Your task to perform on an android device: Open calendar and show me the second week of next month Image 0: 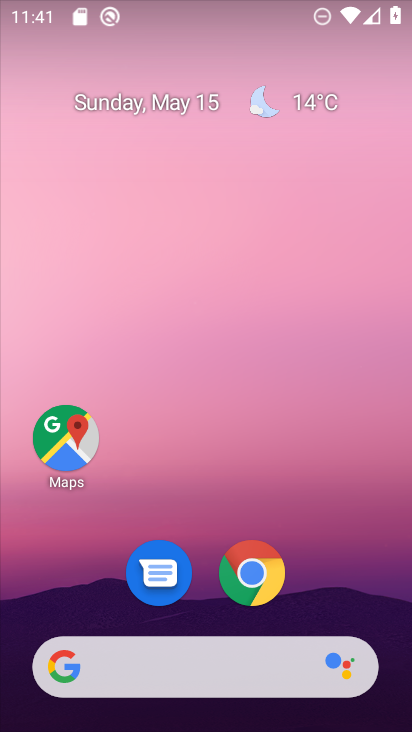
Step 0: drag from (250, 436) to (159, 42)
Your task to perform on an android device: Open calendar and show me the second week of next month Image 1: 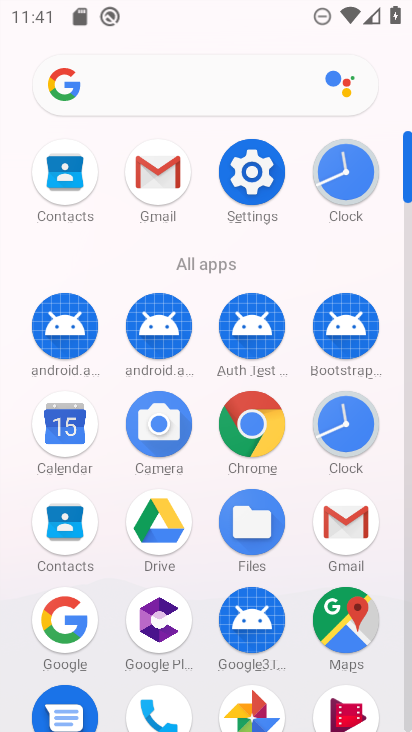
Step 1: click (58, 429)
Your task to perform on an android device: Open calendar and show me the second week of next month Image 2: 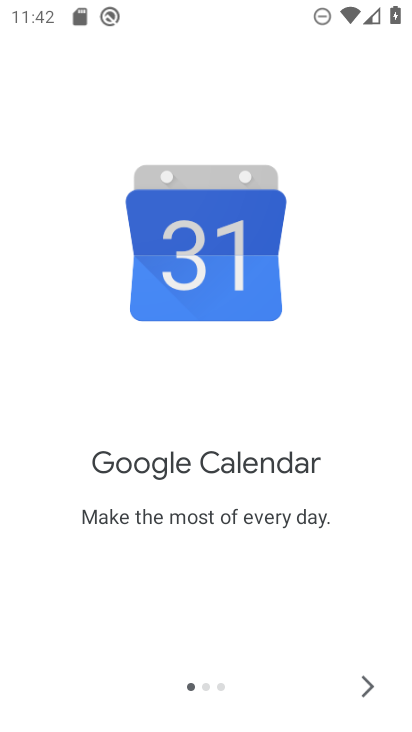
Step 2: click (363, 677)
Your task to perform on an android device: Open calendar and show me the second week of next month Image 3: 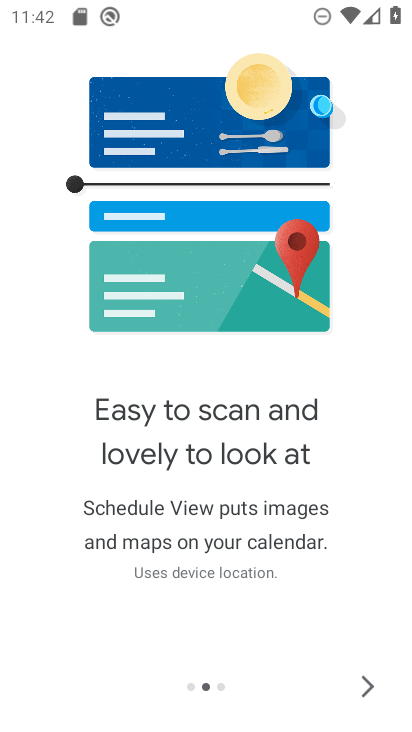
Step 3: click (363, 677)
Your task to perform on an android device: Open calendar and show me the second week of next month Image 4: 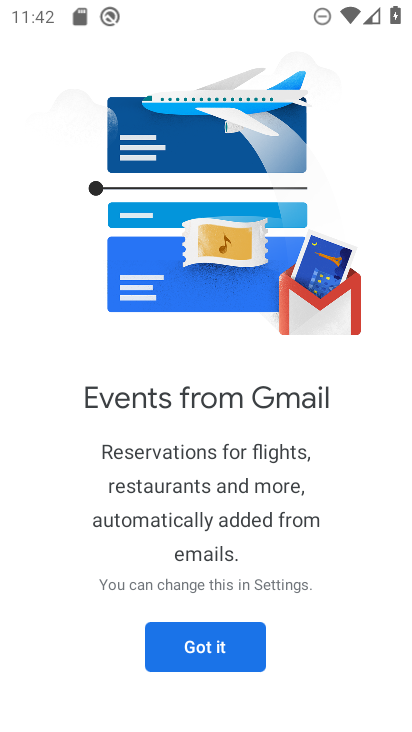
Step 4: click (364, 676)
Your task to perform on an android device: Open calendar and show me the second week of next month Image 5: 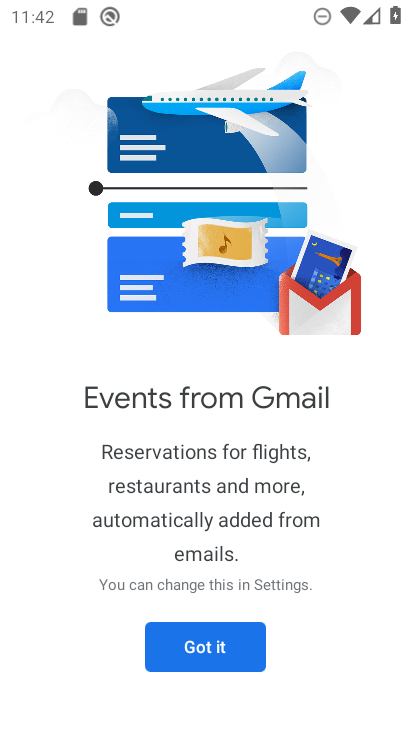
Step 5: click (211, 649)
Your task to perform on an android device: Open calendar and show me the second week of next month Image 6: 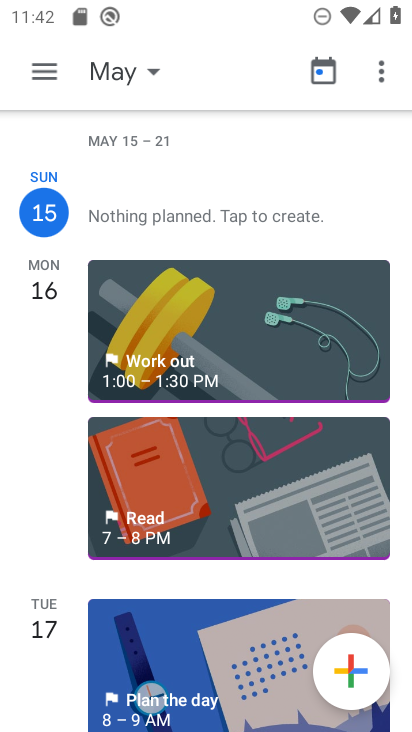
Step 6: click (40, 69)
Your task to perform on an android device: Open calendar and show me the second week of next month Image 7: 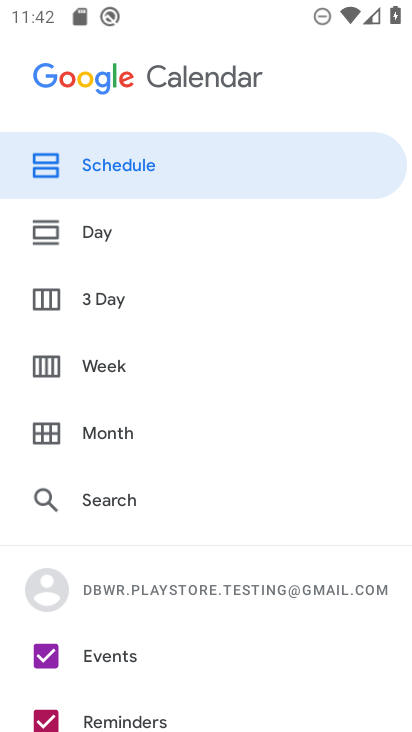
Step 7: click (92, 360)
Your task to perform on an android device: Open calendar and show me the second week of next month Image 8: 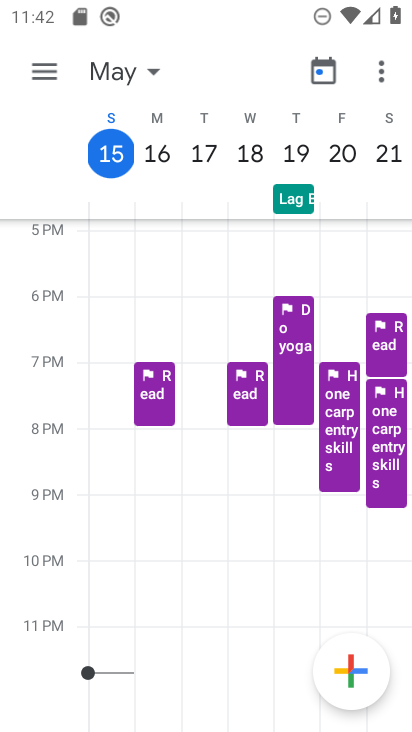
Step 8: click (152, 66)
Your task to perform on an android device: Open calendar and show me the second week of next month Image 9: 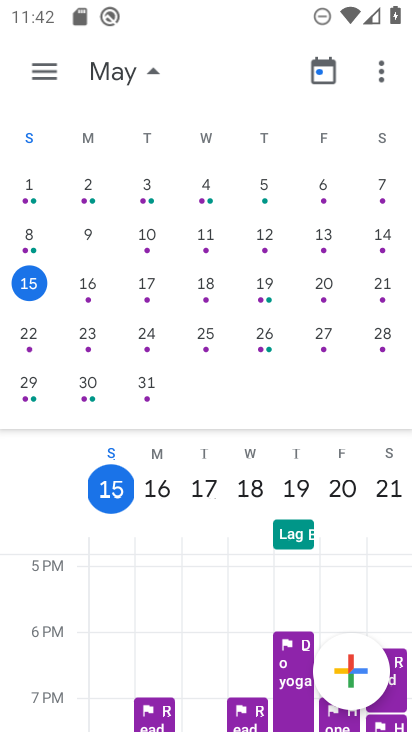
Step 9: drag from (337, 252) to (79, 244)
Your task to perform on an android device: Open calendar and show me the second week of next month Image 10: 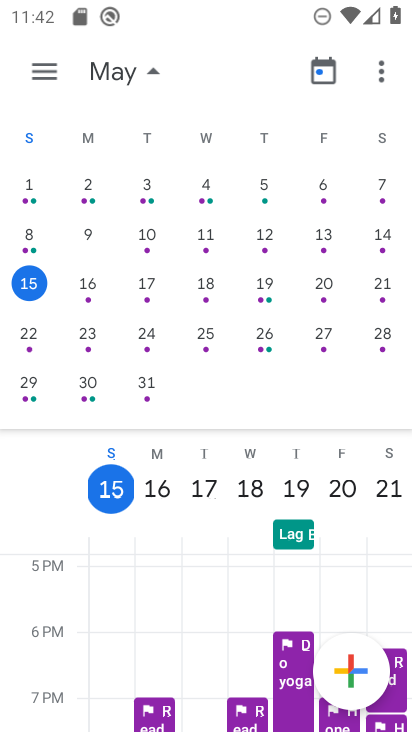
Step 10: drag from (350, 254) to (35, 279)
Your task to perform on an android device: Open calendar and show me the second week of next month Image 11: 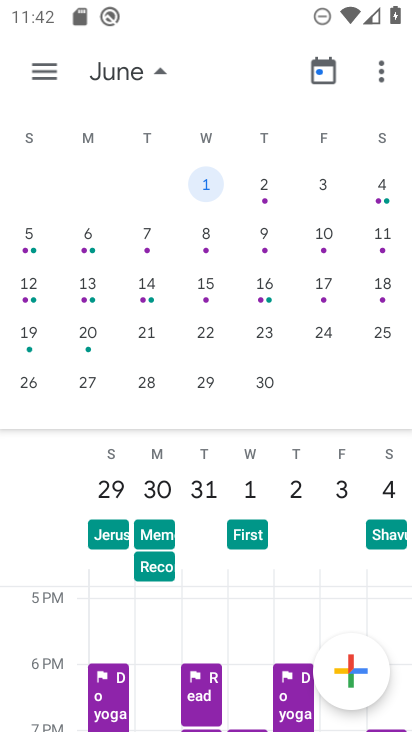
Step 11: click (204, 234)
Your task to perform on an android device: Open calendar and show me the second week of next month Image 12: 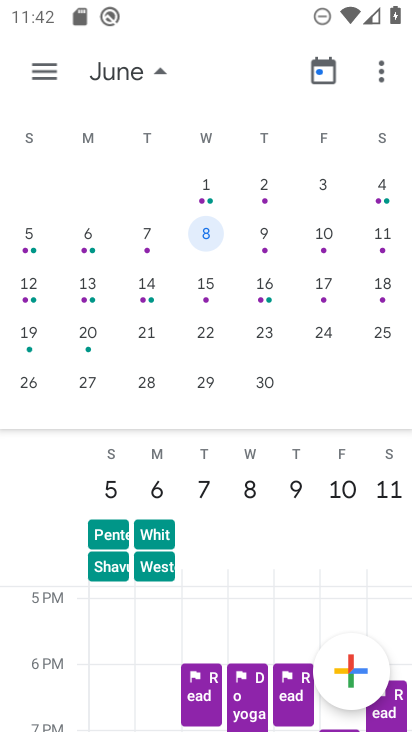
Step 12: task complete